Your task to perform on an android device: turn off location Image 0: 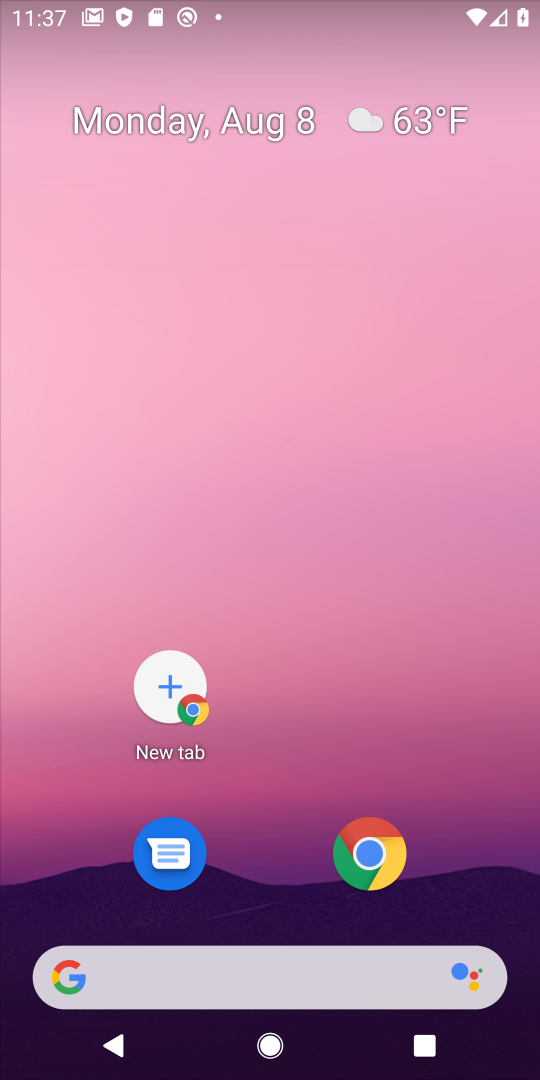
Step 0: drag from (246, 866) to (262, 4)
Your task to perform on an android device: turn off location Image 1: 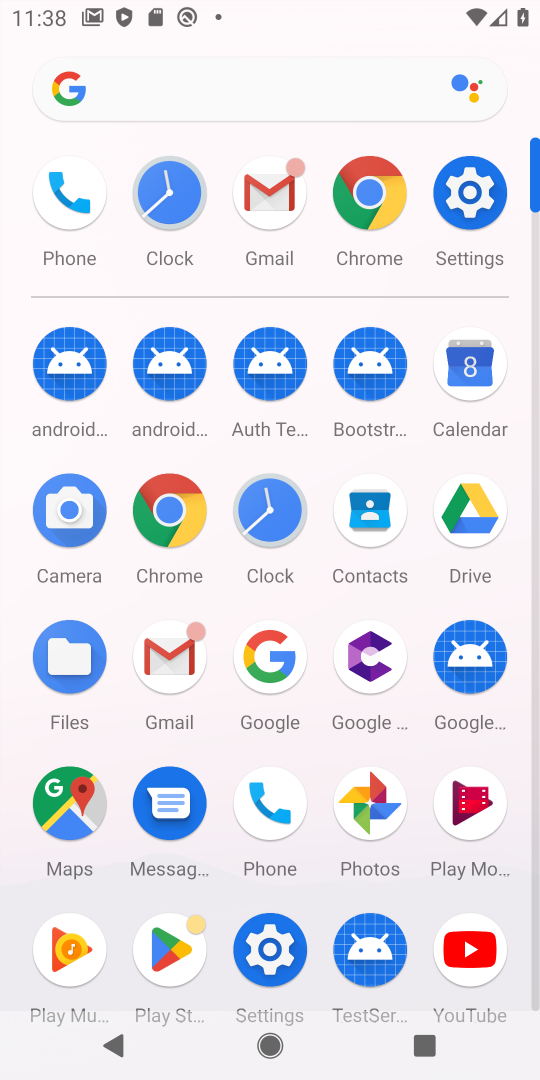
Step 1: click (477, 205)
Your task to perform on an android device: turn off location Image 2: 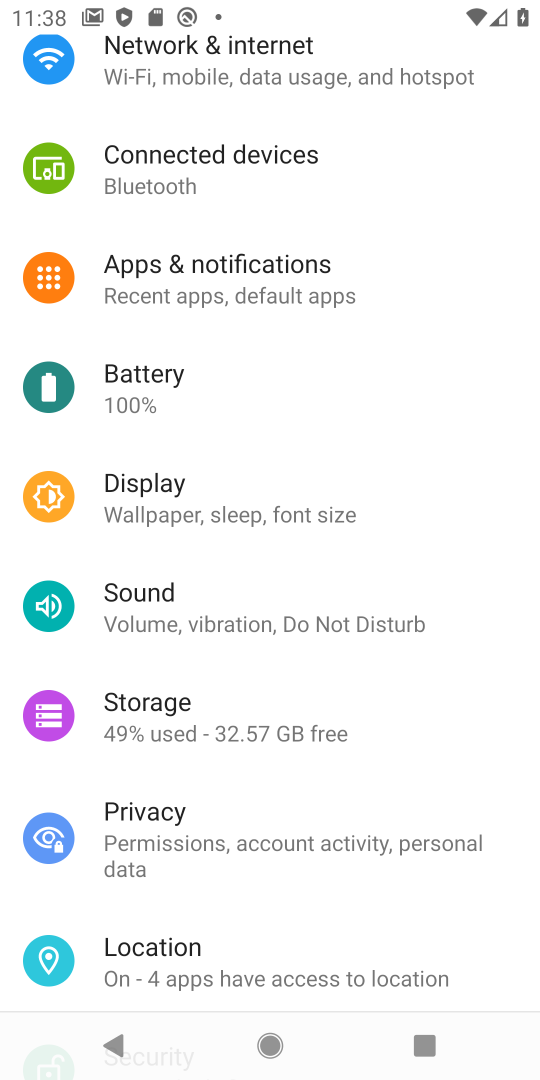
Step 2: click (185, 951)
Your task to perform on an android device: turn off location Image 3: 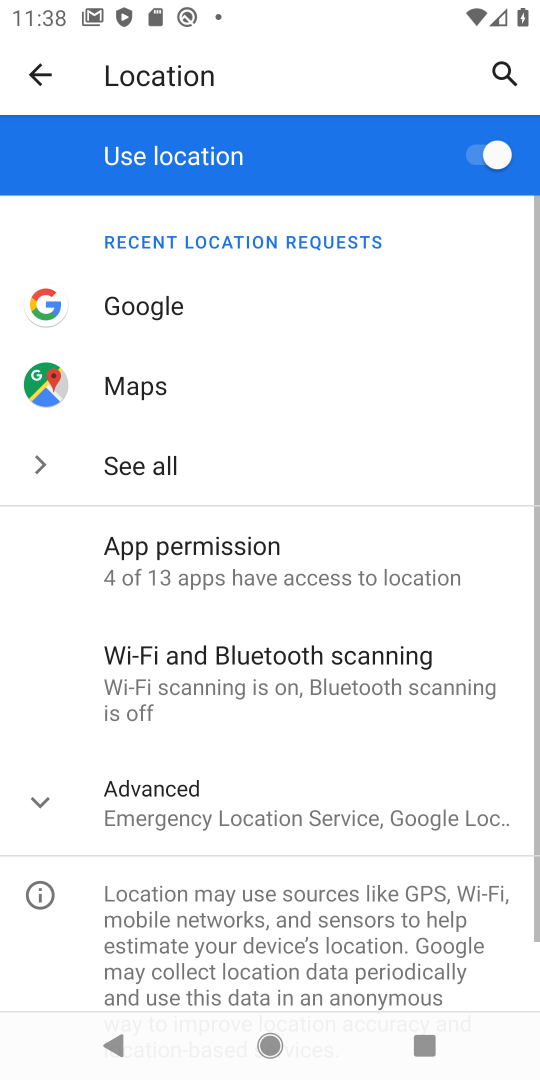
Step 3: click (484, 153)
Your task to perform on an android device: turn off location Image 4: 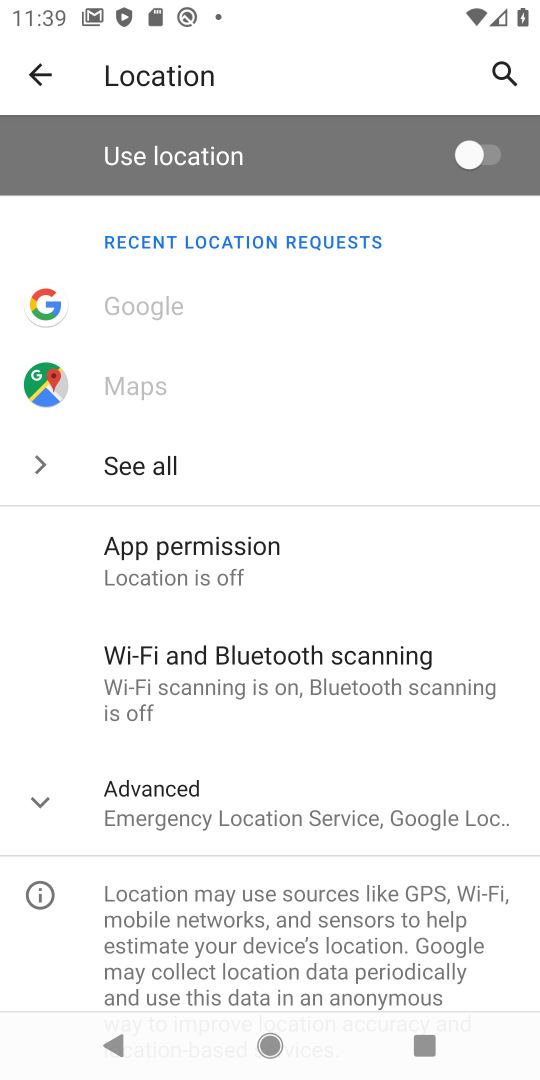
Step 4: task complete